Your task to perform on an android device: toggle priority inbox in the gmail app Image 0: 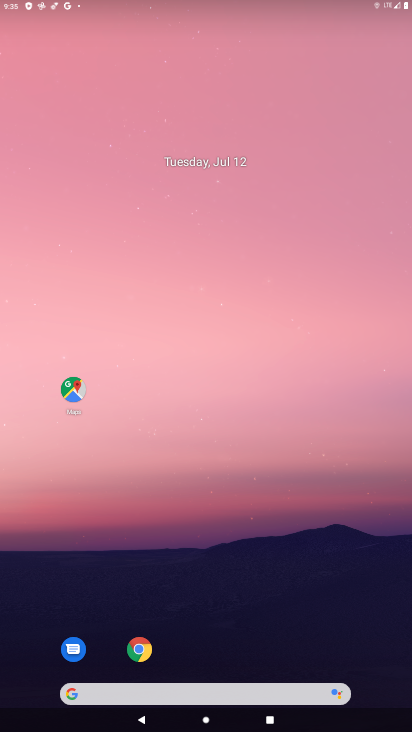
Step 0: click (239, 688)
Your task to perform on an android device: toggle priority inbox in the gmail app Image 1: 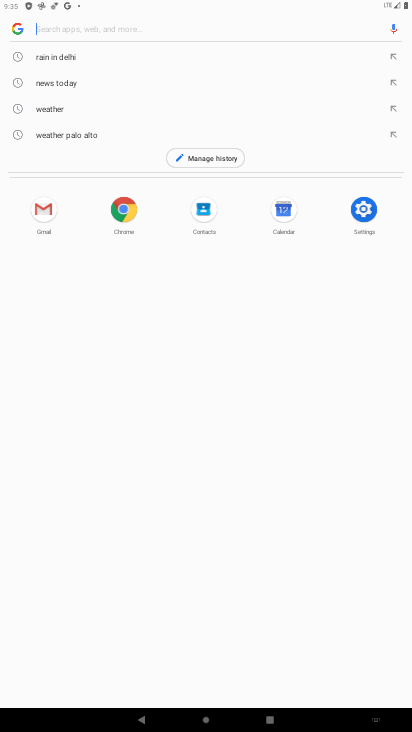
Step 1: press home button
Your task to perform on an android device: toggle priority inbox in the gmail app Image 2: 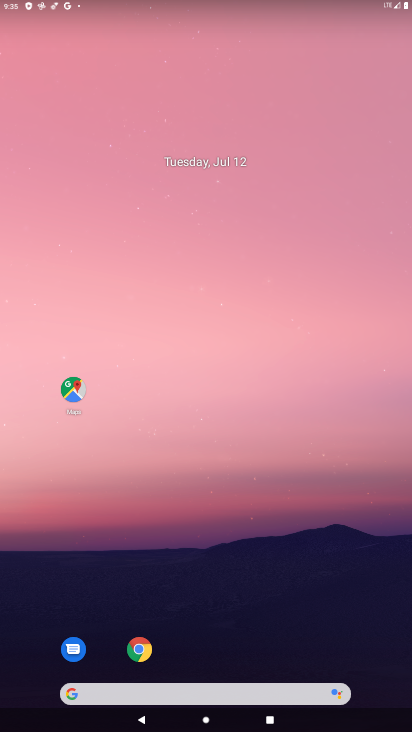
Step 2: drag from (274, 652) to (312, 241)
Your task to perform on an android device: toggle priority inbox in the gmail app Image 3: 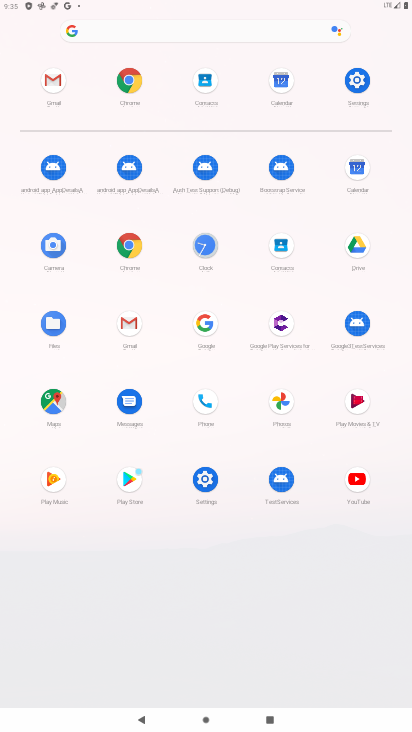
Step 3: click (366, 101)
Your task to perform on an android device: toggle priority inbox in the gmail app Image 4: 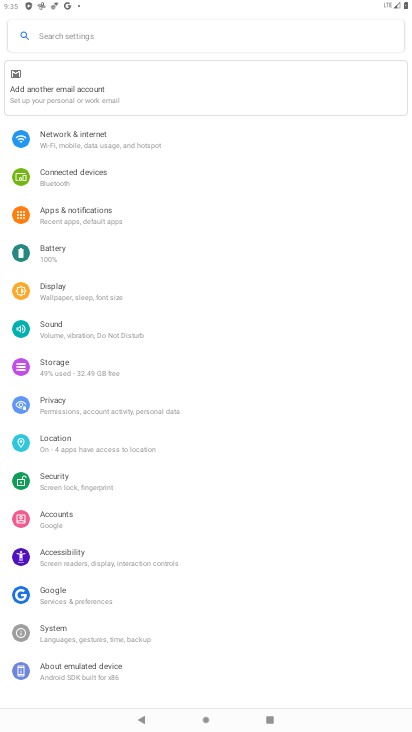
Step 4: press home button
Your task to perform on an android device: toggle priority inbox in the gmail app Image 5: 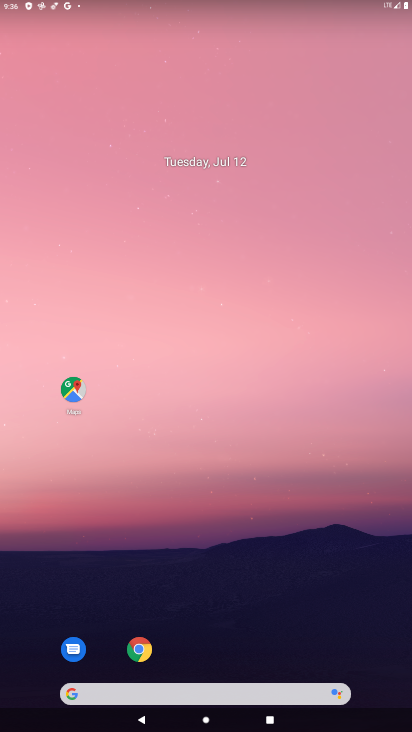
Step 5: drag from (298, 625) to (307, 254)
Your task to perform on an android device: toggle priority inbox in the gmail app Image 6: 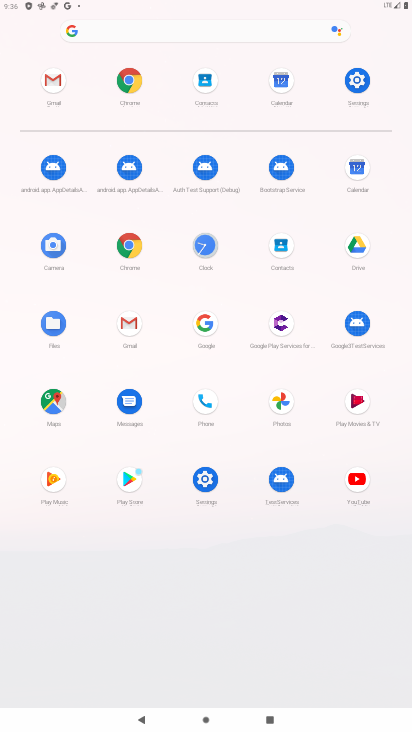
Step 6: click (137, 340)
Your task to perform on an android device: toggle priority inbox in the gmail app Image 7: 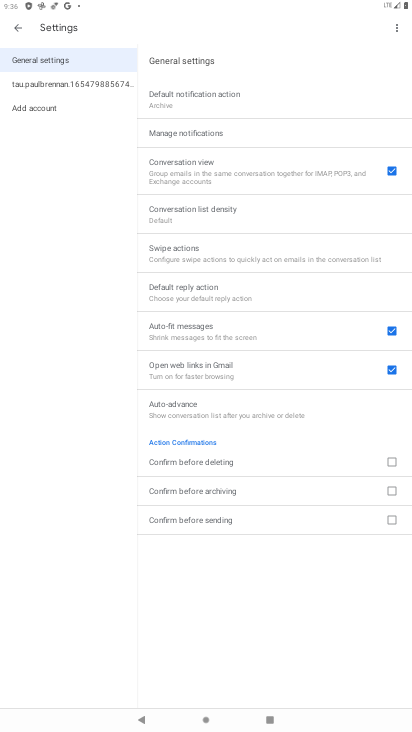
Step 7: click (109, 85)
Your task to perform on an android device: toggle priority inbox in the gmail app Image 8: 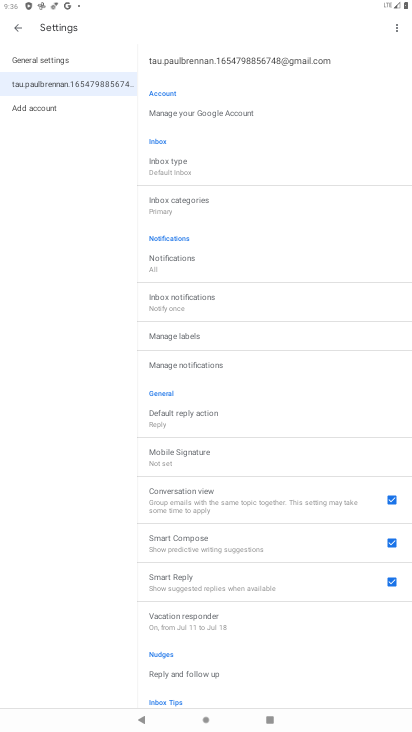
Step 8: click (214, 177)
Your task to perform on an android device: toggle priority inbox in the gmail app Image 9: 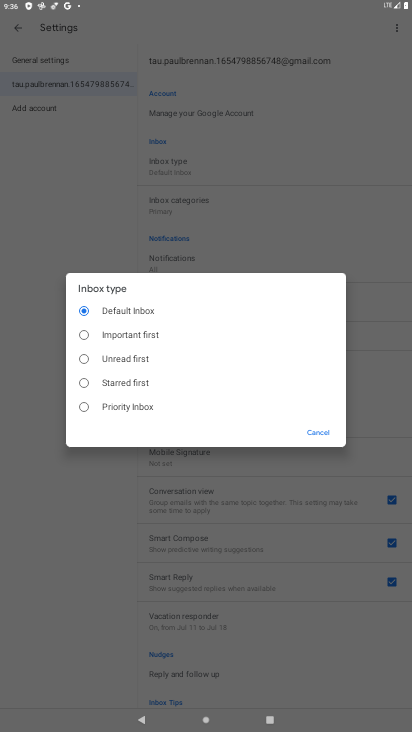
Step 9: click (126, 402)
Your task to perform on an android device: toggle priority inbox in the gmail app Image 10: 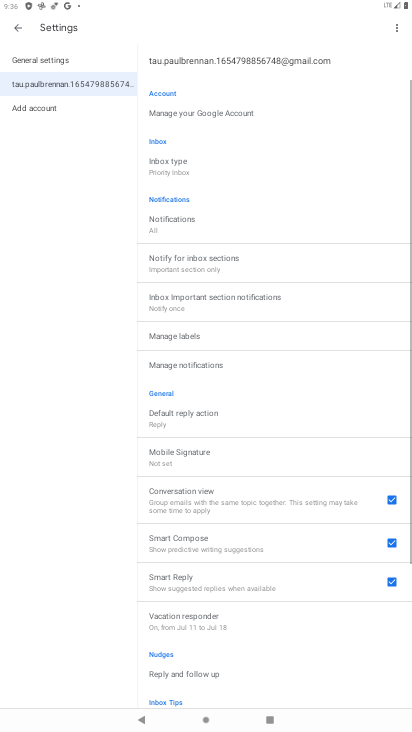
Step 10: task complete